Your task to perform on an android device: Go to privacy settings Image 0: 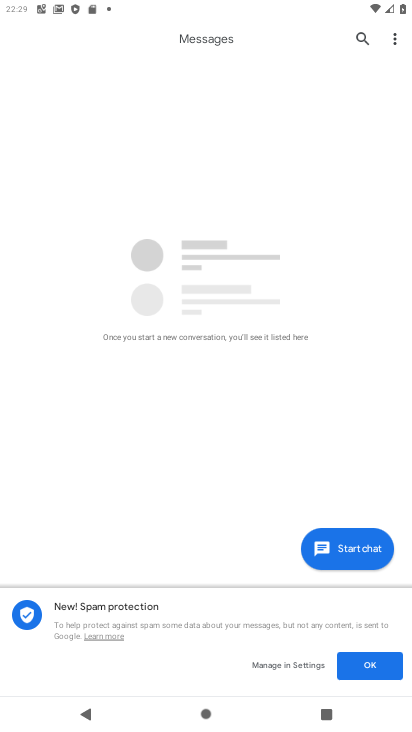
Step 0: press home button
Your task to perform on an android device: Go to privacy settings Image 1: 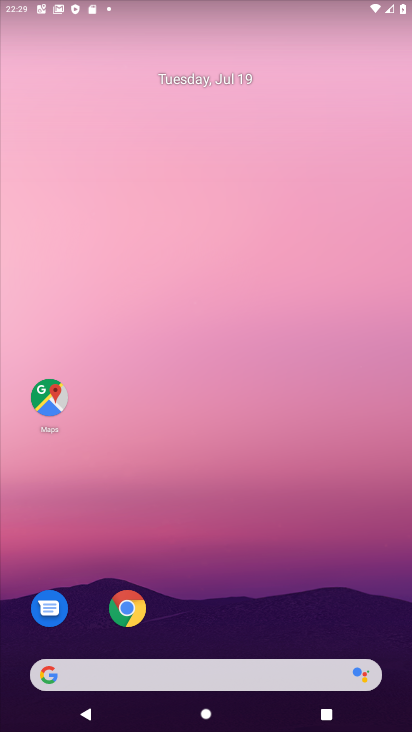
Step 1: drag from (293, 631) to (227, 66)
Your task to perform on an android device: Go to privacy settings Image 2: 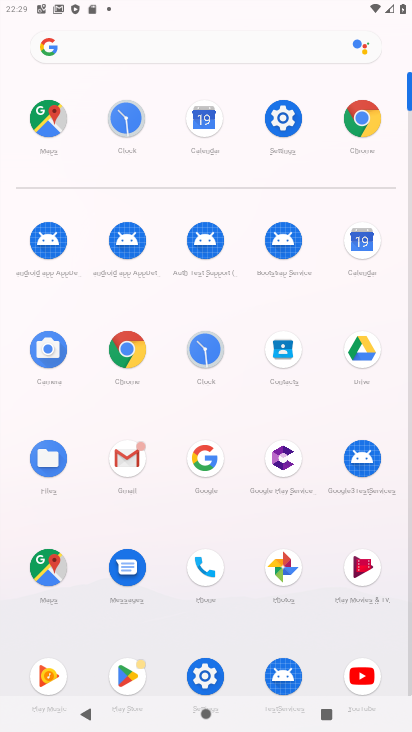
Step 2: click (268, 124)
Your task to perform on an android device: Go to privacy settings Image 3: 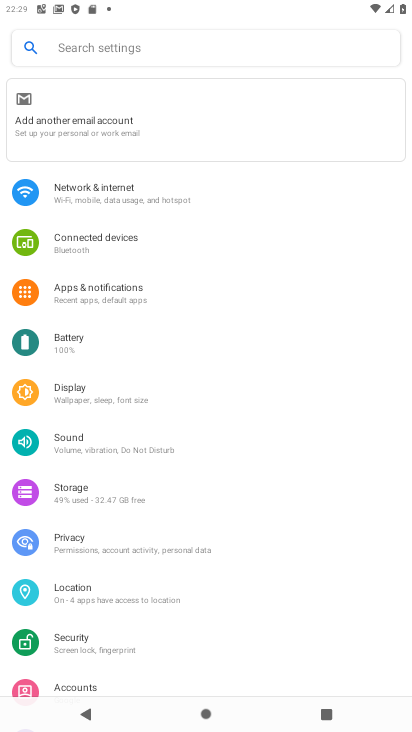
Step 3: drag from (157, 636) to (132, 322)
Your task to perform on an android device: Go to privacy settings Image 4: 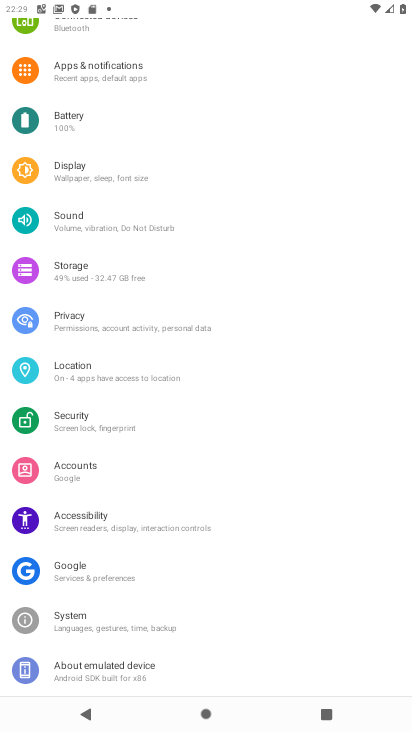
Step 4: click (95, 320)
Your task to perform on an android device: Go to privacy settings Image 5: 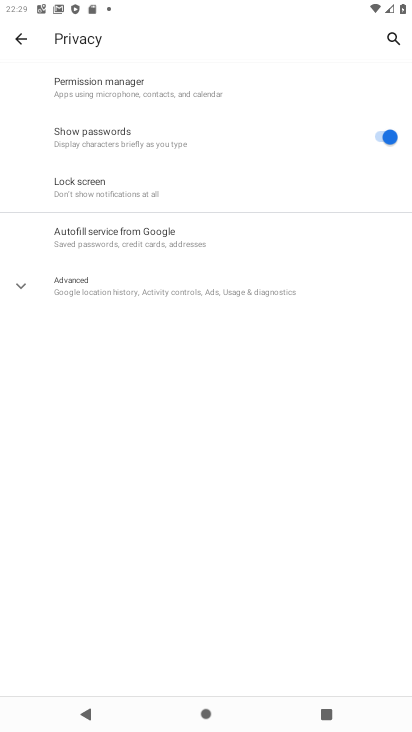
Step 5: task complete